Your task to perform on an android device: Go to notification settings Image 0: 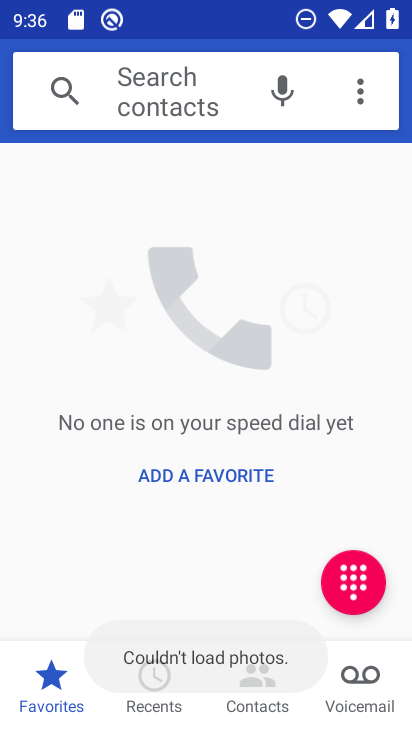
Step 0: press home button
Your task to perform on an android device: Go to notification settings Image 1: 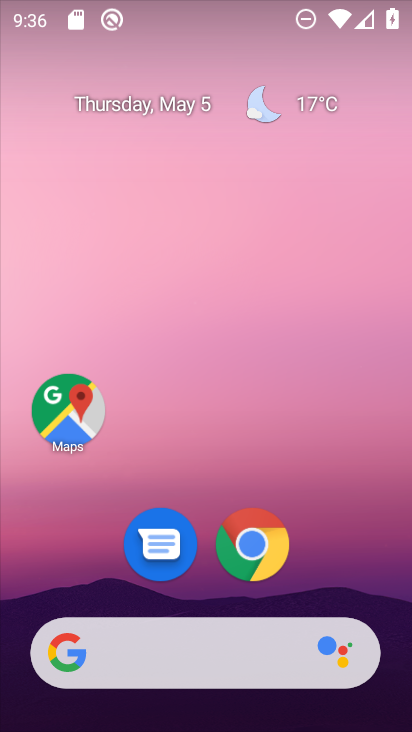
Step 1: drag from (383, 660) to (341, 124)
Your task to perform on an android device: Go to notification settings Image 2: 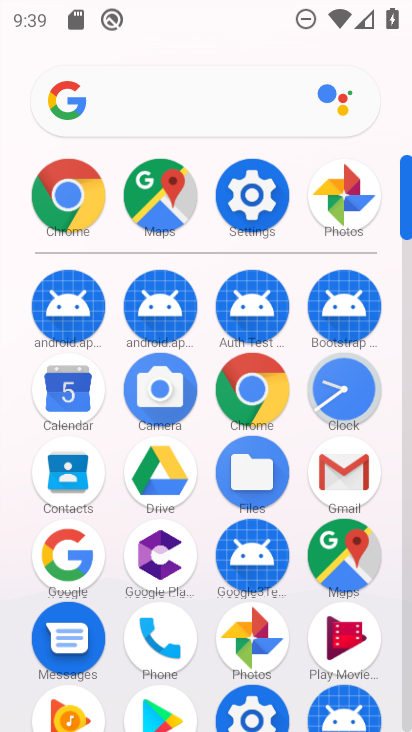
Step 2: click (241, 197)
Your task to perform on an android device: Go to notification settings Image 3: 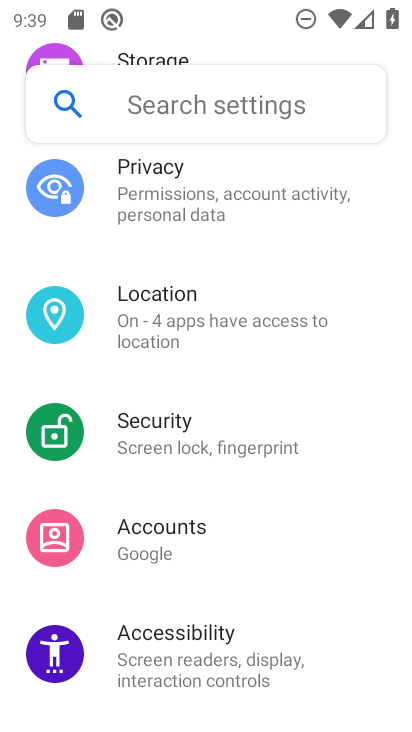
Step 3: drag from (255, 281) to (212, 571)
Your task to perform on an android device: Go to notification settings Image 4: 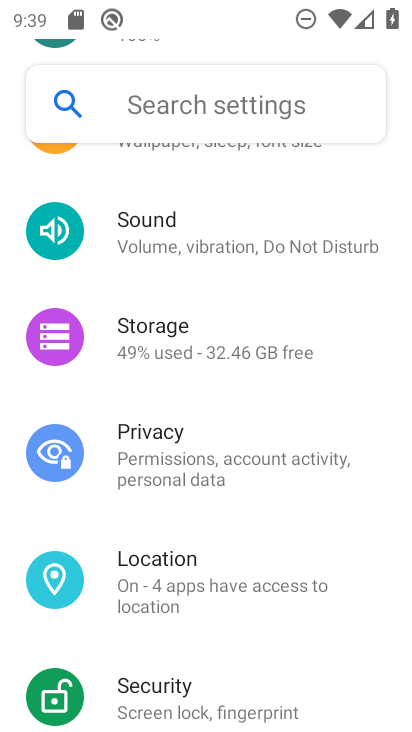
Step 4: drag from (198, 205) to (201, 564)
Your task to perform on an android device: Go to notification settings Image 5: 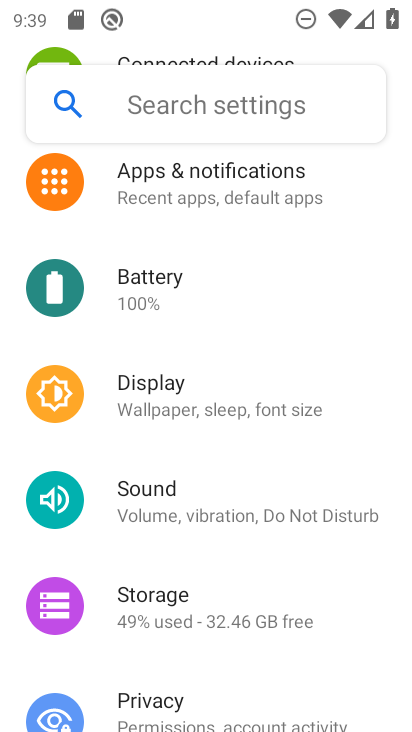
Step 5: click (214, 189)
Your task to perform on an android device: Go to notification settings Image 6: 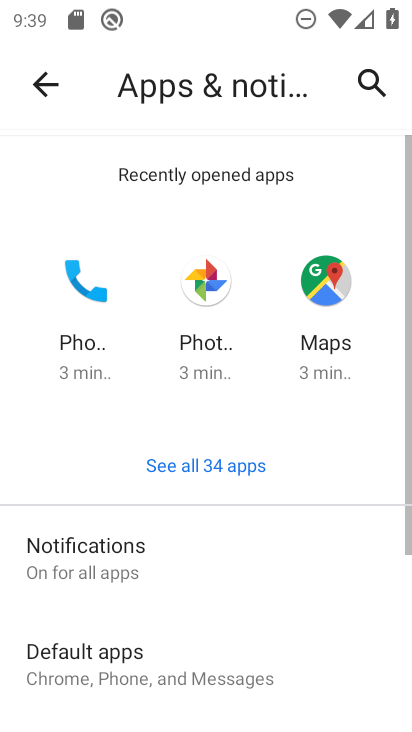
Step 6: click (176, 583)
Your task to perform on an android device: Go to notification settings Image 7: 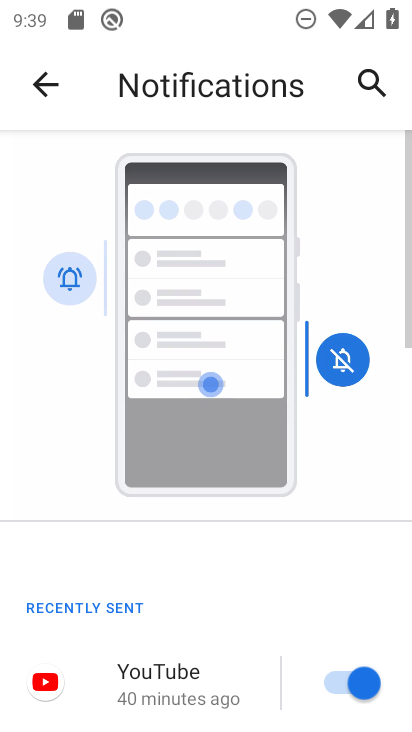
Step 7: drag from (161, 670) to (204, 78)
Your task to perform on an android device: Go to notification settings Image 8: 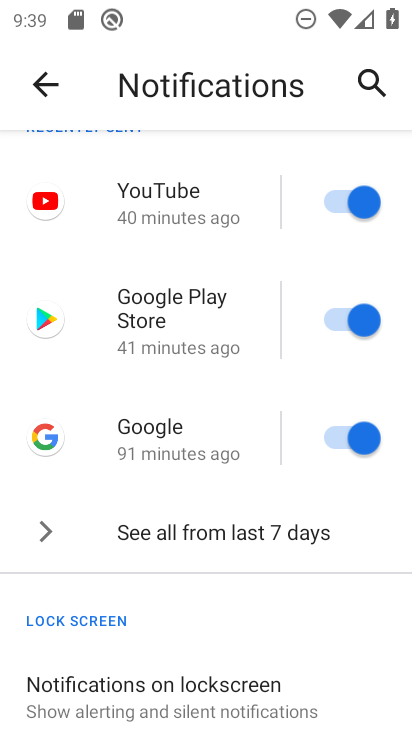
Step 8: drag from (161, 708) to (214, 240)
Your task to perform on an android device: Go to notification settings Image 9: 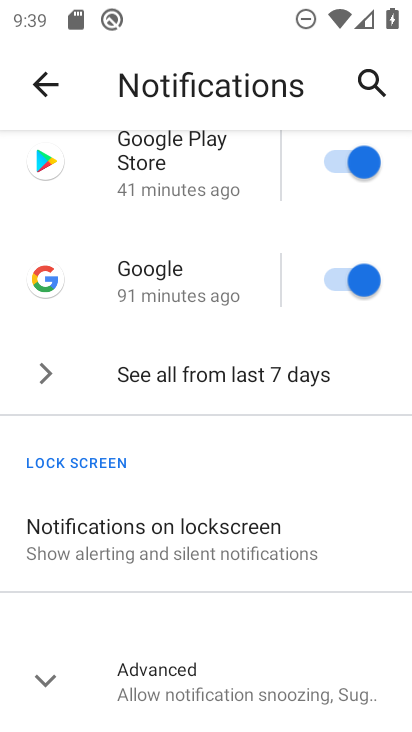
Step 9: click (52, 676)
Your task to perform on an android device: Go to notification settings Image 10: 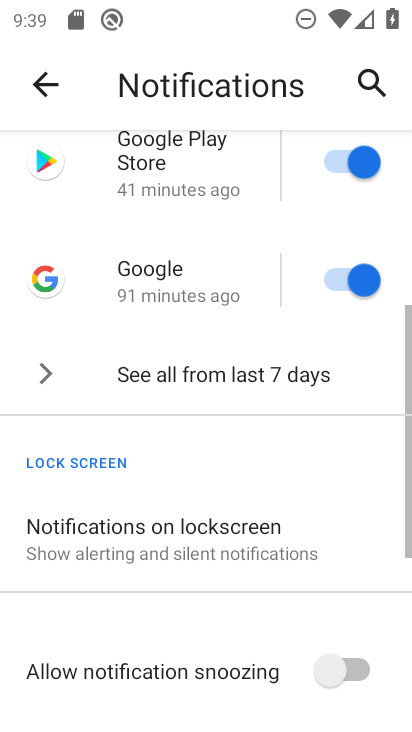
Step 10: task complete